Your task to perform on an android device: Open calendar and show me the first week of next month Image 0: 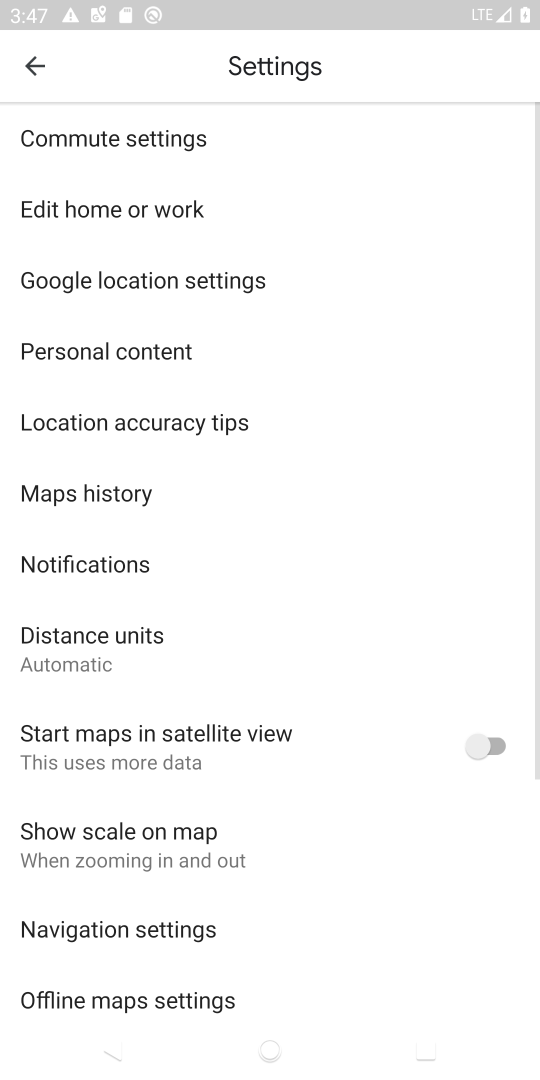
Step 0: press back button
Your task to perform on an android device: Open calendar and show me the first week of next month Image 1: 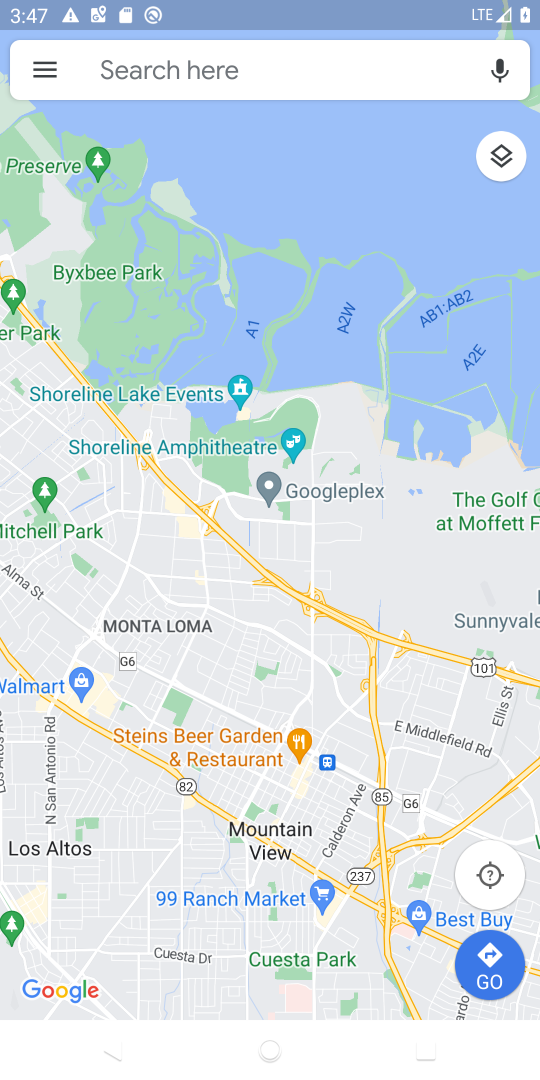
Step 1: press back button
Your task to perform on an android device: Open calendar and show me the first week of next month Image 2: 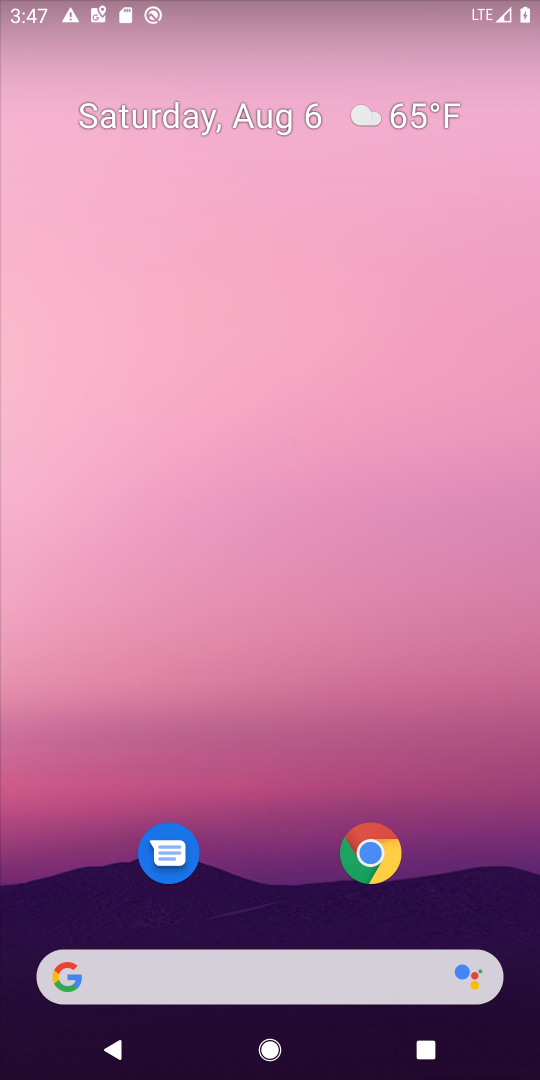
Step 2: drag from (307, 887) to (286, 178)
Your task to perform on an android device: Open calendar and show me the first week of next month Image 3: 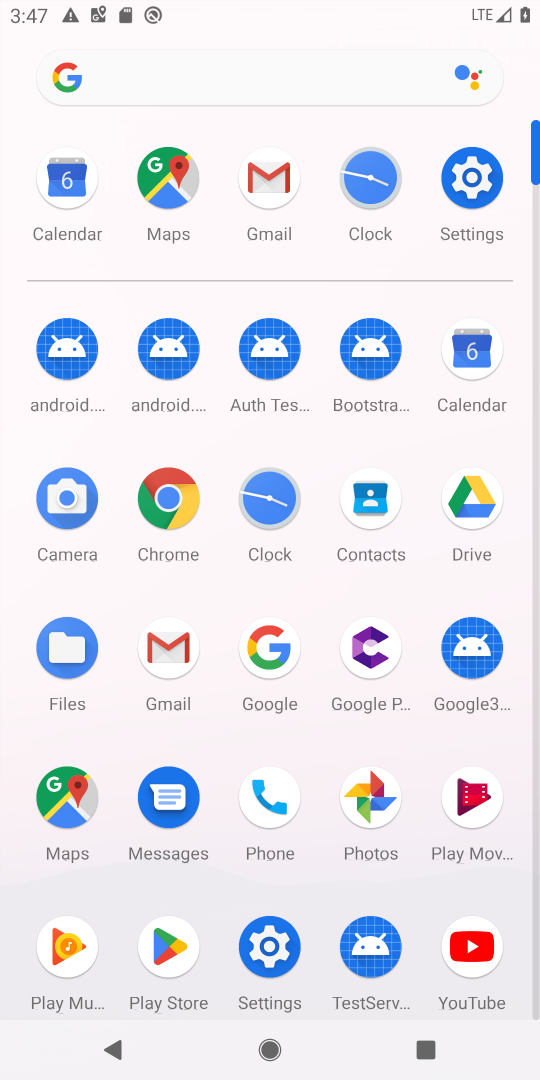
Step 3: click (462, 348)
Your task to perform on an android device: Open calendar and show me the first week of next month Image 4: 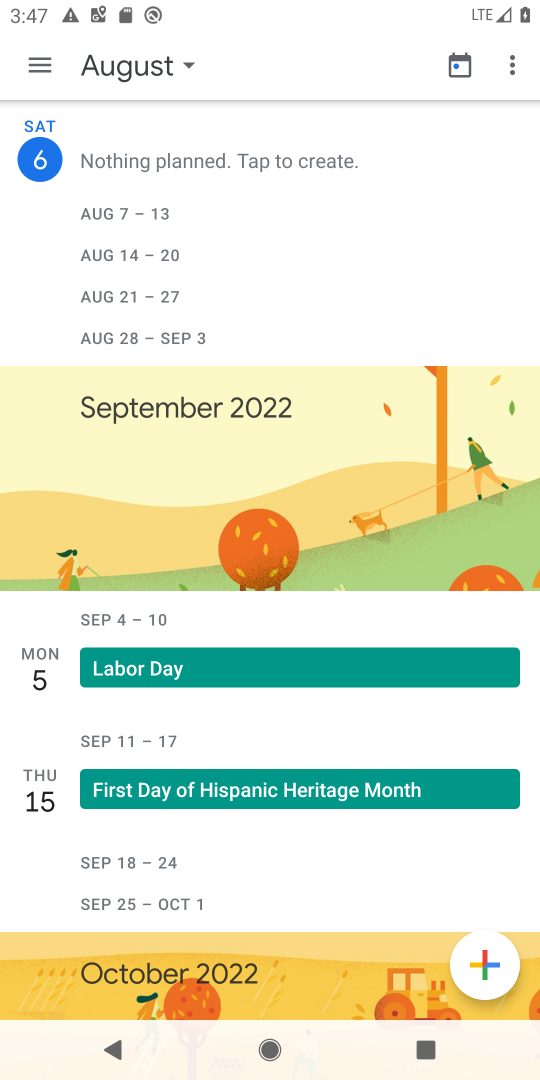
Step 4: click (155, 72)
Your task to perform on an android device: Open calendar and show me the first week of next month Image 5: 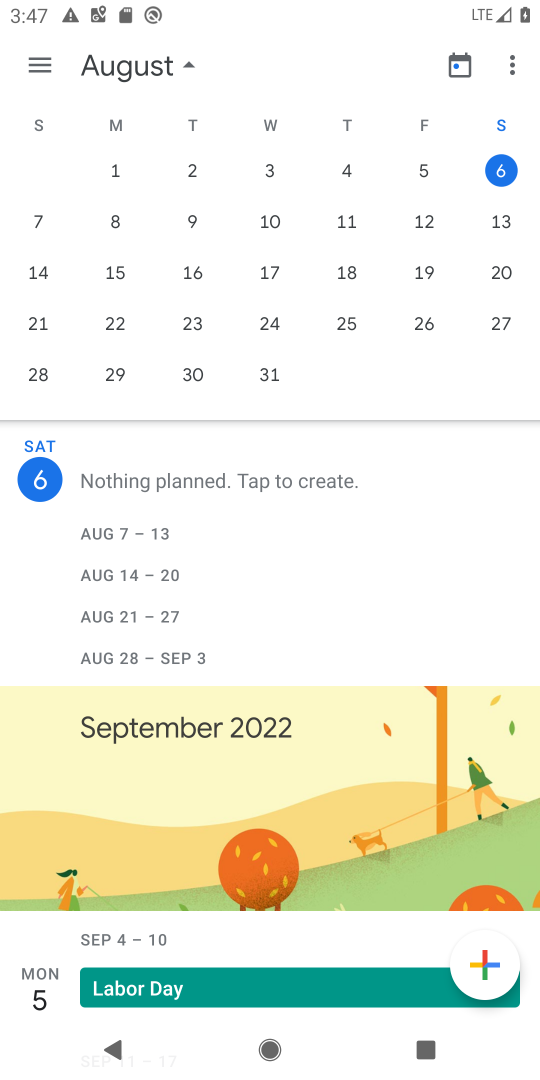
Step 5: drag from (501, 261) to (14, 268)
Your task to perform on an android device: Open calendar and show me the first week of next month Image 6: 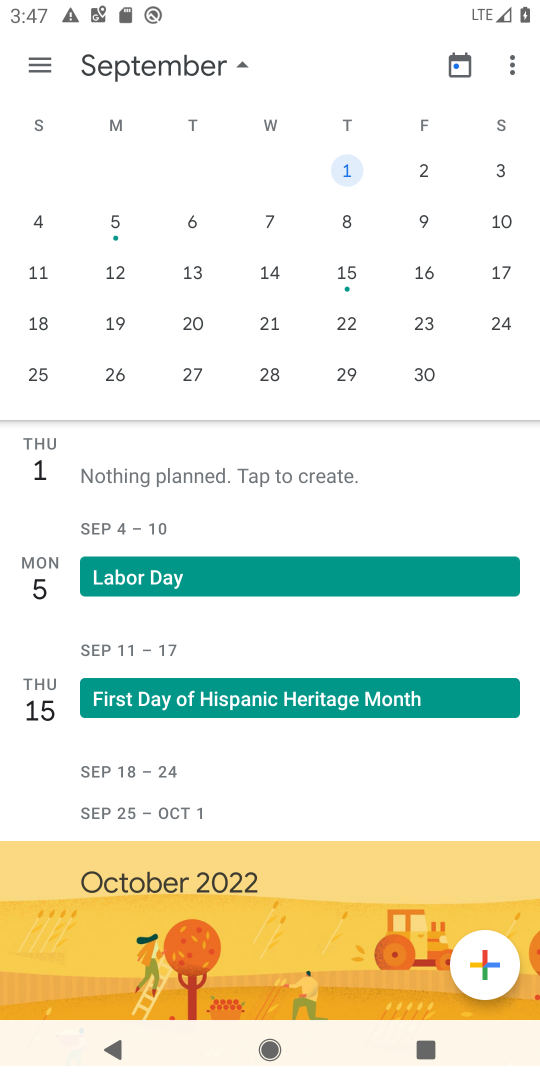
Step 6: click (342, 166)
Your task to perform on an android device: Open calendar and show me the first week of next month Image 7: 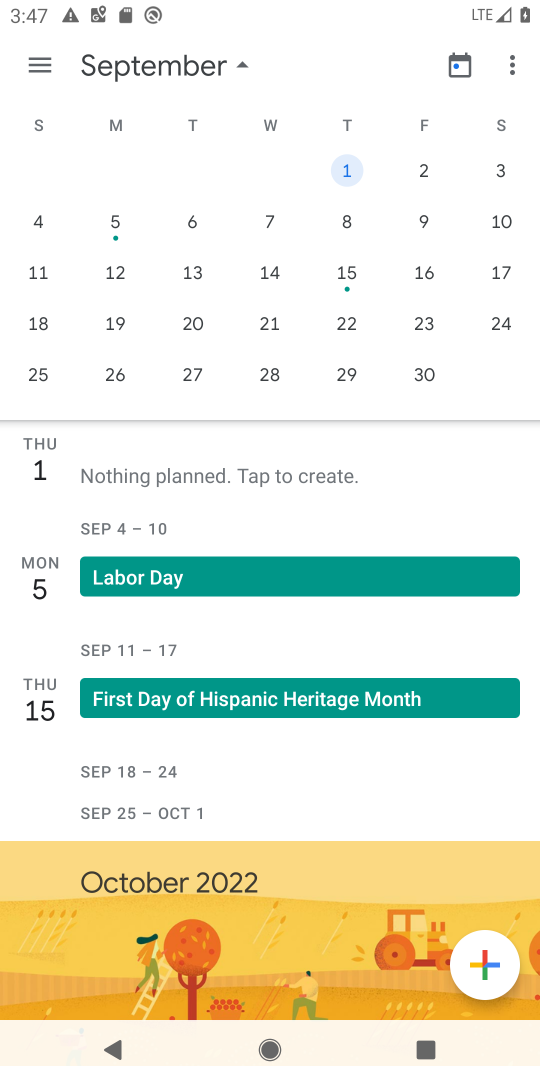
Step 7: task complete